Your task to perform on an android device: change the upload size in google photos Image 0: 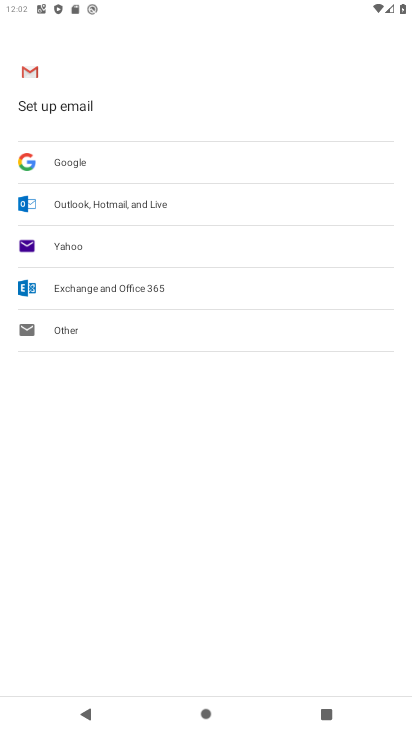
Step 0: press home button
Your task to perform on an android device: change the upload size in google photos Image 1: 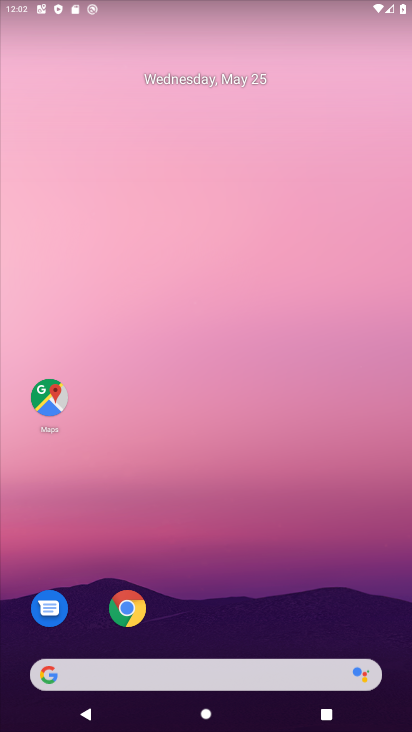
Step 1: drag from (290, 470) to (332, 8)
Your task to perform on an android device: change the upload size in google photos Image 2: 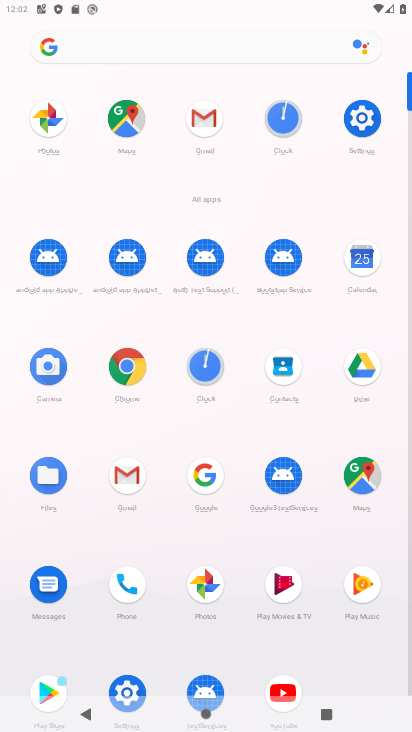
Step 2: click (202, 578)
Your task to perform on an android device: change the upload size in google photos Image 3: 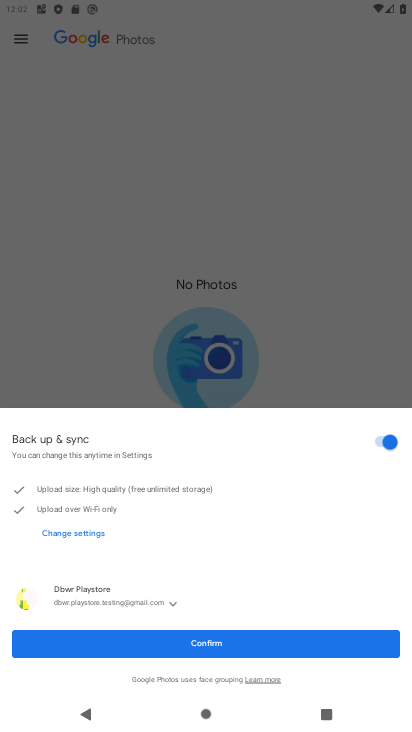
Step 3: click (160, 639)
Your task to perform on an android device: change the upload size in google photos Image 4: 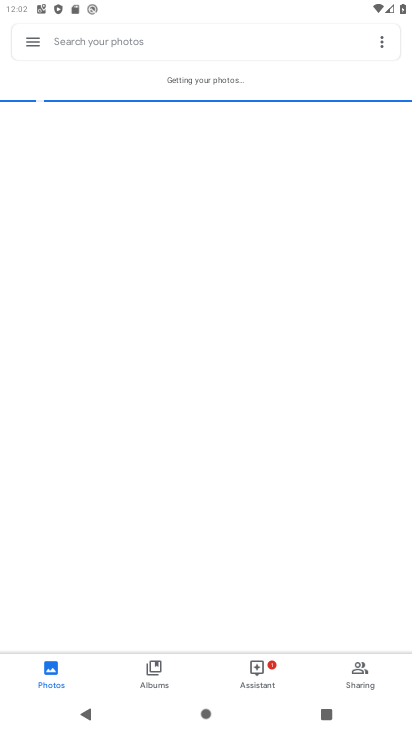
Step 4: click (36, 36)
Your task to perform on an android device: change the upload size in google photos Image 5: 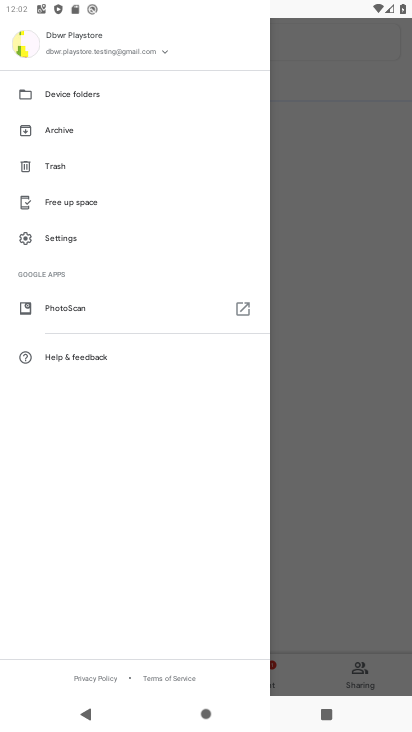
Step 5: click (62, 230)
Your task to perform on an android device: change the upload size in google photos Image 6: 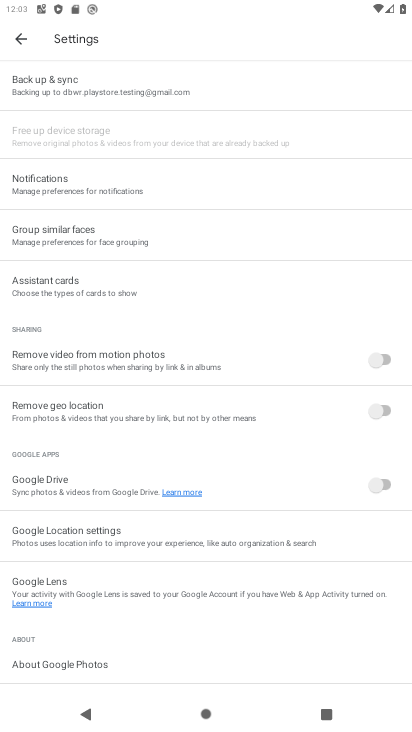
Step 6: click (91, 87)
Your task to perform on an android device: change the upload size in google photos Image 7: 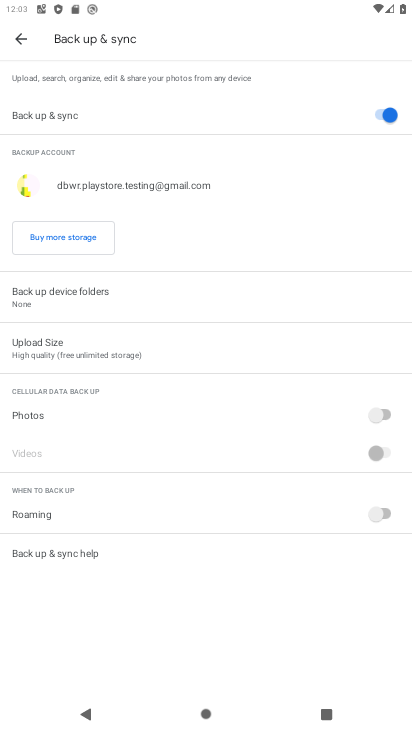
Step 7: click (109, 351)
Your task to perform on an android device: change the upload size in google photos Image 8: 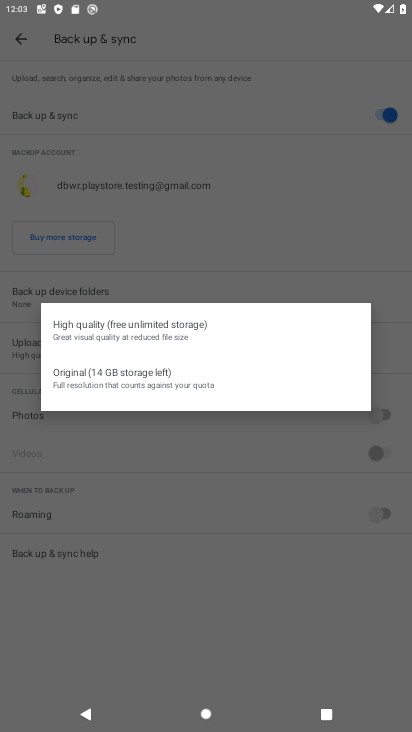
Step 8: click (98, 372)
Your task to perform on an android device: change the upload size in google photos Image 9: 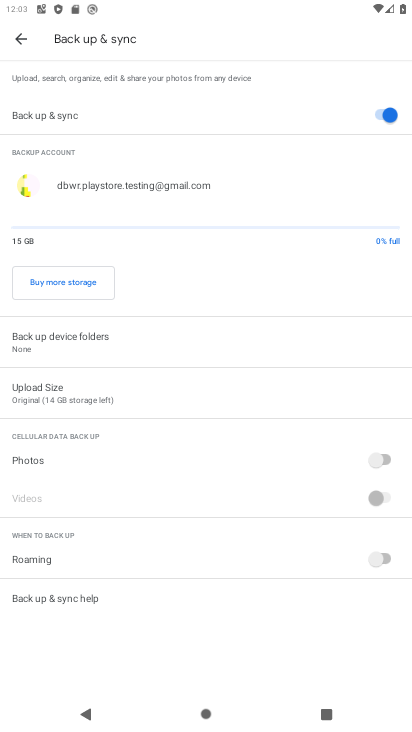
Step 9: task complete